Your task to perform on an android device: clear history in the chrome app Image 0: 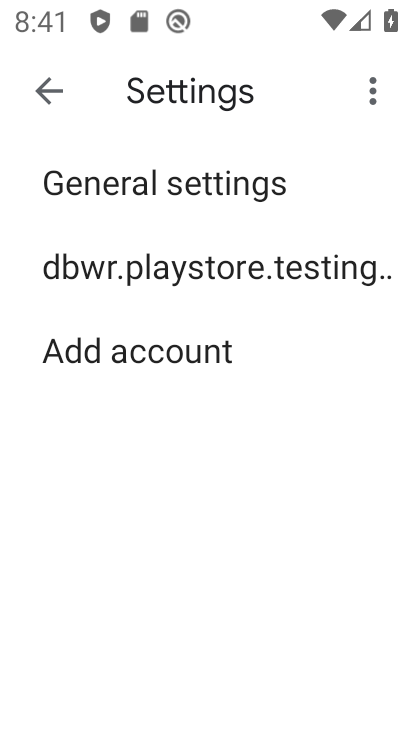
Step 0: press home button
Your task to perform on an android device: clear history in the chrome app Image 1: 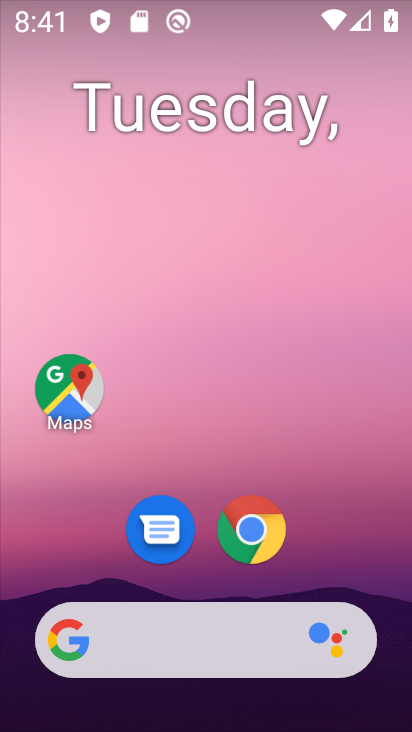
Step 1: click (251, 529)
Your task to perform on an android device: clear history in the chrome app Image 2: 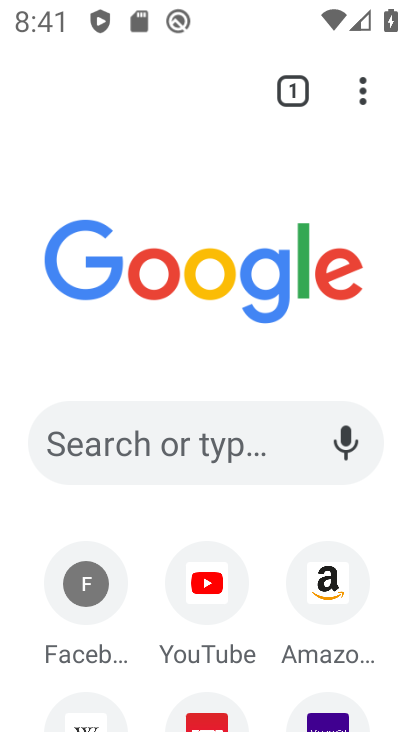
Step 2: click (360, 97)
Your task to perform on an android device: clear history in the chrome app Image 3: 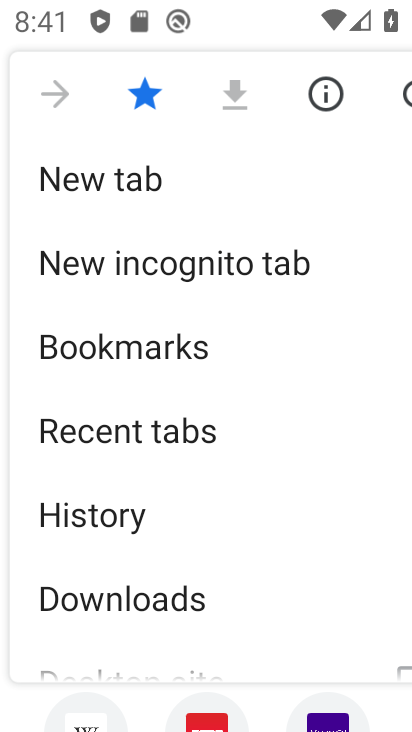
Step 3: click (76, 517)
Your task to perform on an android device: clear history in the chrome app Image 4: 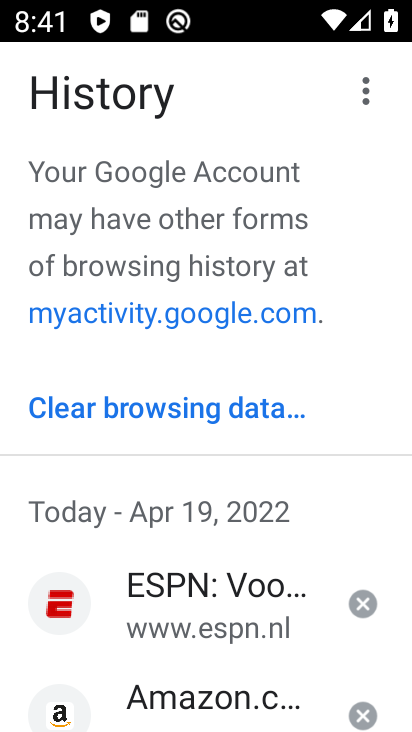
Step 4: click (136, 407)
Your task to perform on an android device: clear history in the chrome app Image 5: 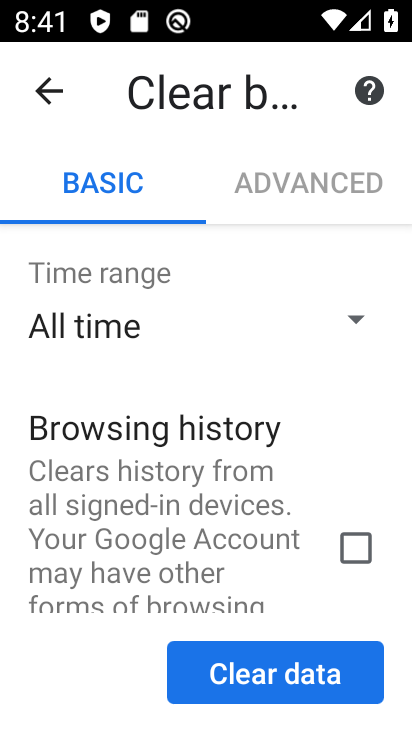
Step 5: click (364, 552)
Your task to perform on an android device: clear history in the chrome app Image 6: 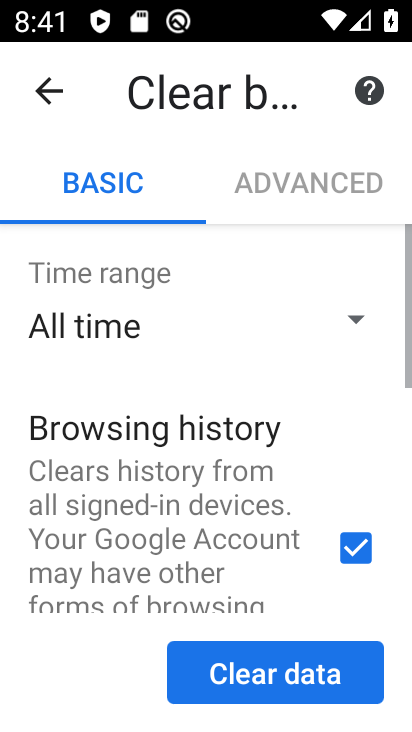
Step 6: drag from (245, 585) to (255, 286)
Your task to perform on an android device: clear history in the chrome app Image 7: 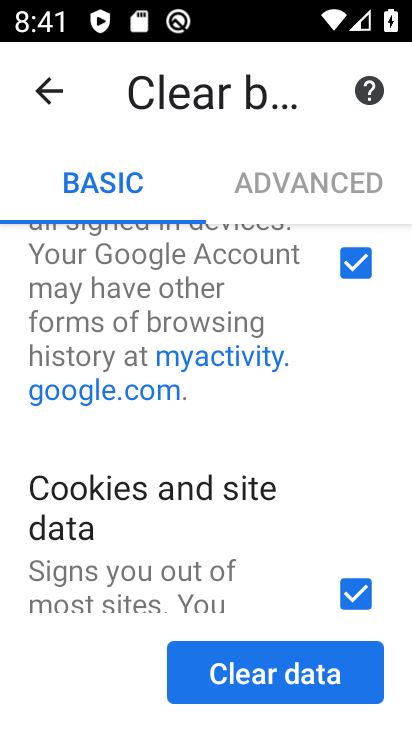
Step 7: click (357, 601)
Your task to perform on an android device: clear history in the chrome app Image 8: 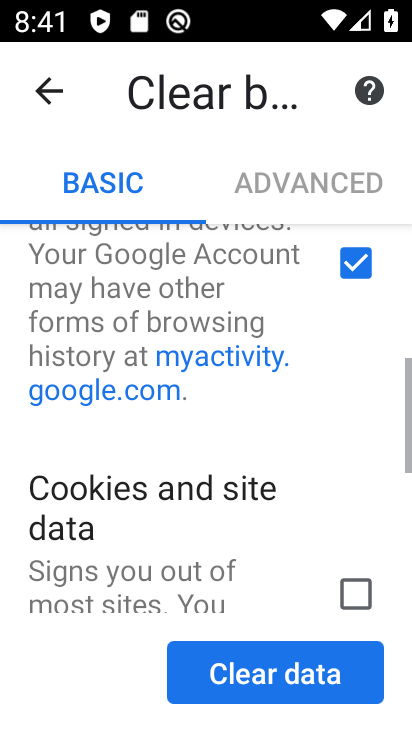
Step 8: drag from (247, 597) to (270, 223)
Your task to perform on an android device: clear history in the chrome app Image 9: 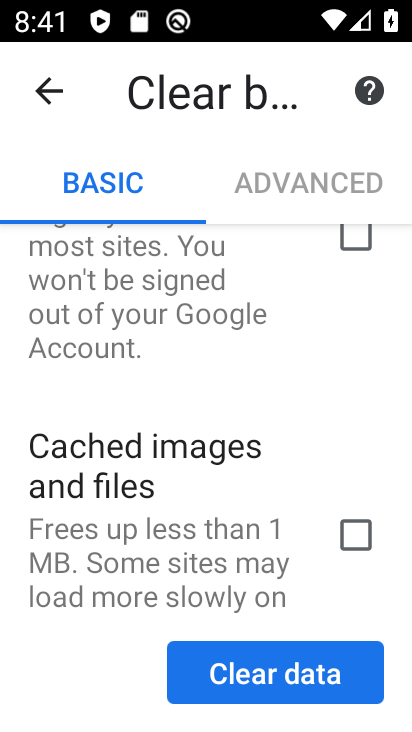
Step 9: drag from (278, 528) to (291, 281)
Your task to perform on an android device: clear history in the chrome app Image 10: 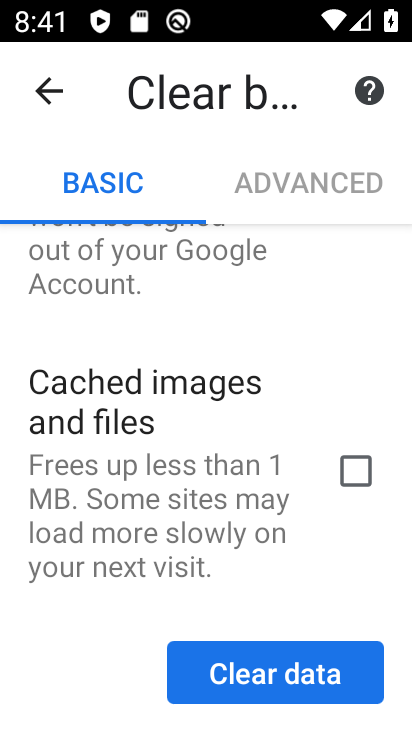
Step 10: click (263, 679)
Your task to perform on an android device: clear history in the chrome app Image 11: 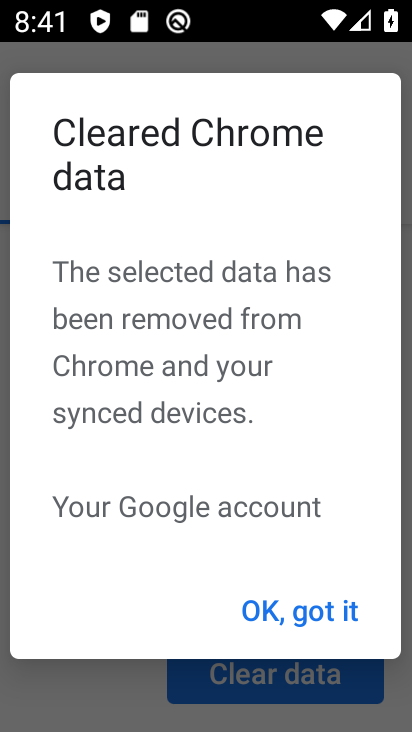
Step 11: click (312, 617)
Your task to perform on an android device: clear history in the chrome app Image 12: 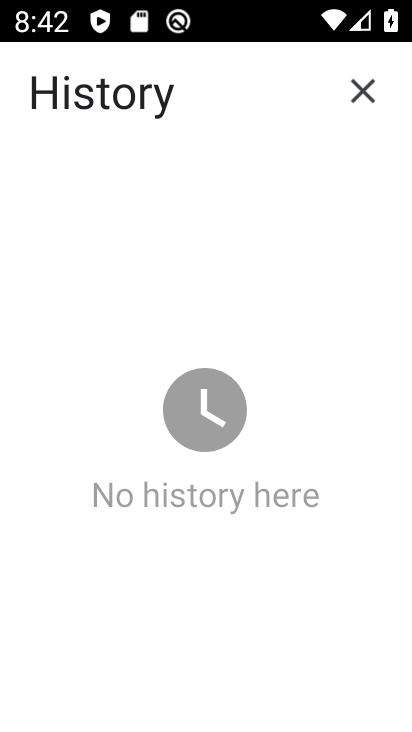
Step 12: task complete